Your task to perform on an android device: install app "eBay: The shopping marketplace" Image 0: 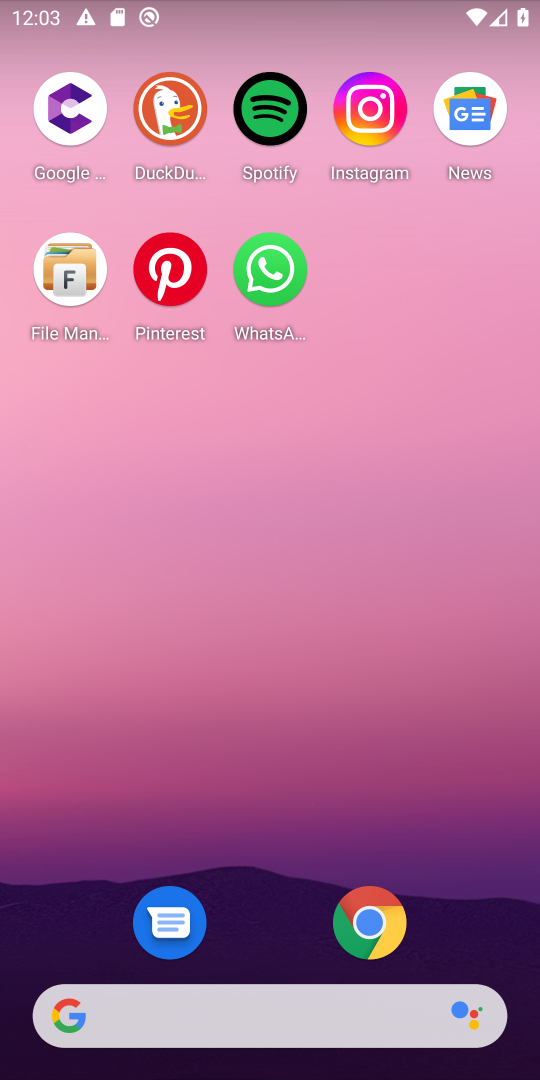
Step 0: drag from (365, 683) to (367, 106)
Your task to perform on an android device: install app "eBay: The shopping marketplace" Image 1: 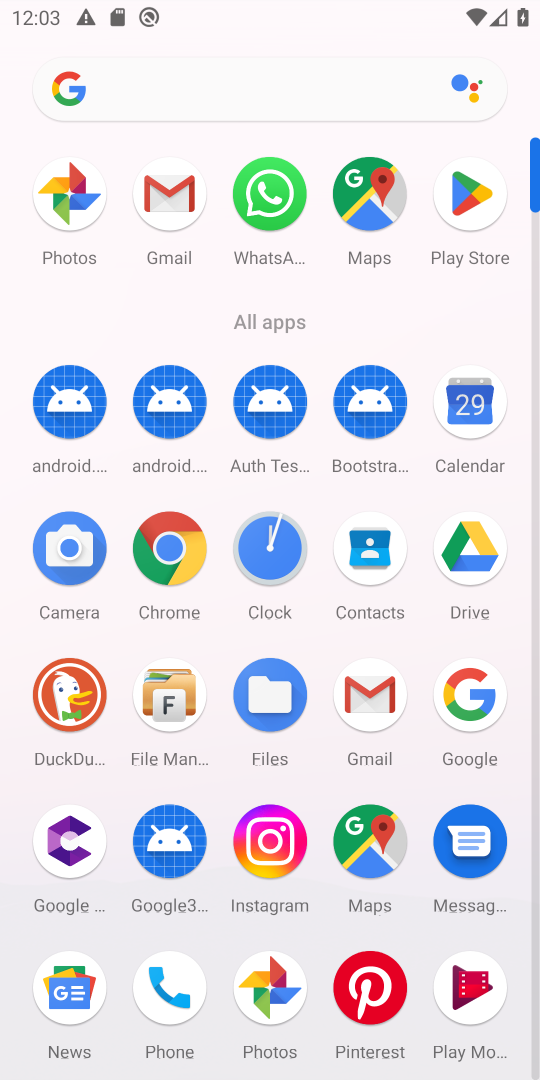
Step 1: drag from (319, 924) to (347, 398)
Your task to perform on an android device: install app "eBay: The shopping marketplace" Image 2: 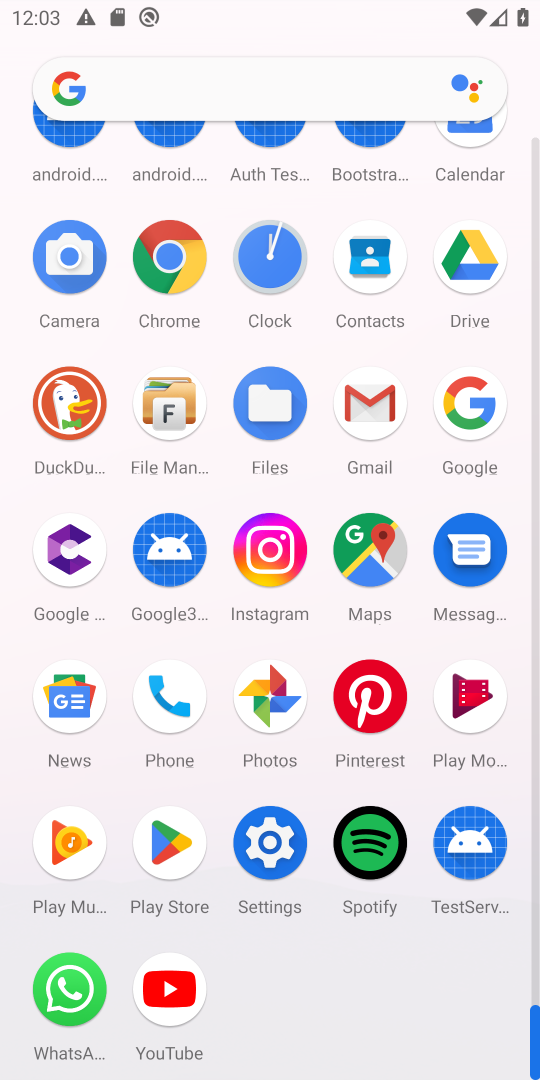
Step 2: click (178, 843)
Your task to perform on an android device: install app "eBay: The shopping marketplace" Image 3: 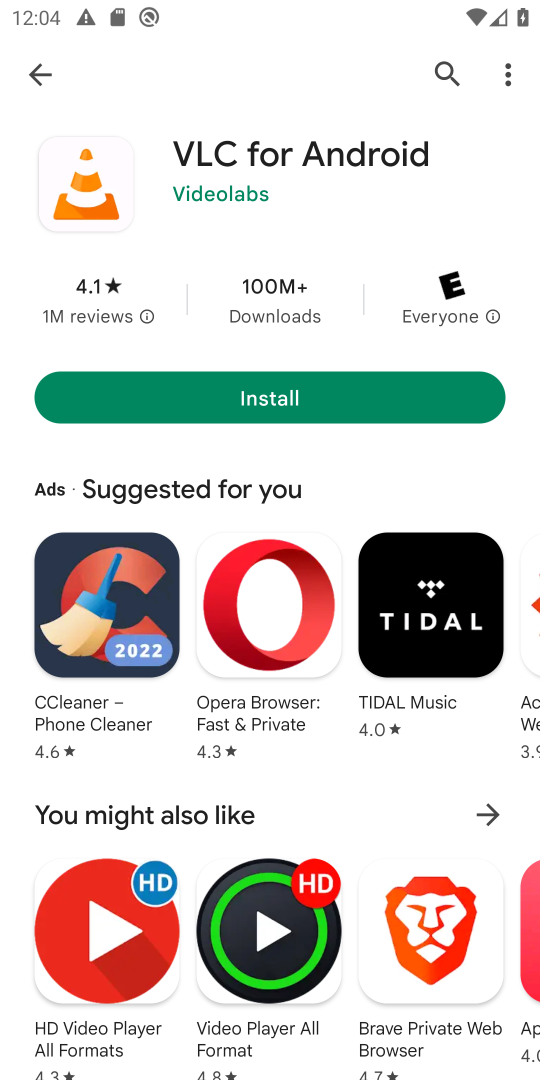
Step 3: click (446, 70)
Your task to perform on an android device: install app "eBay: The shopping marketplace" Image 4: 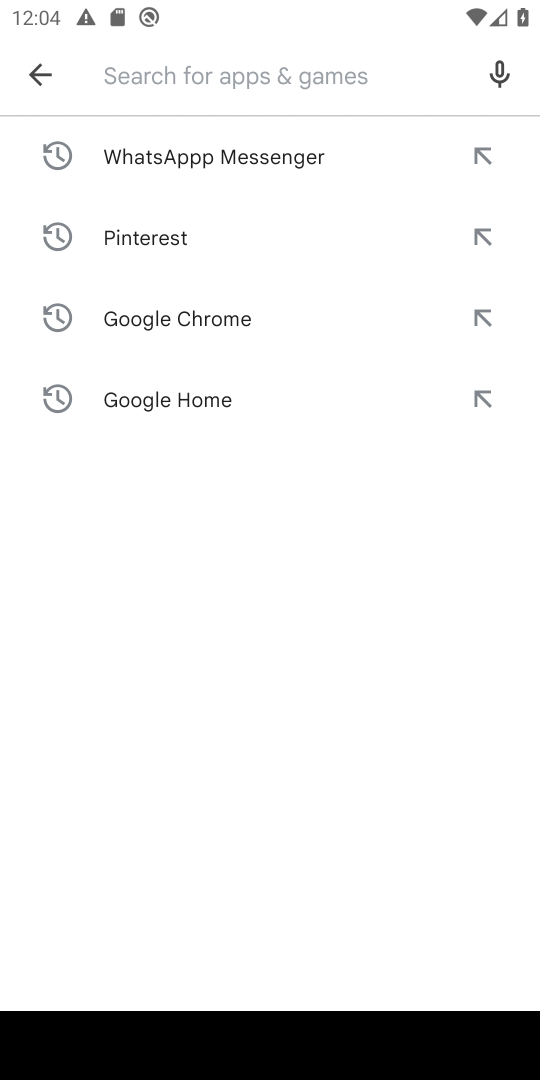
Step 4: type "eBay: The shopping Marketplace"
Your task to perform on an android device: install app "eBay: The shopping marketplace" Image 5: 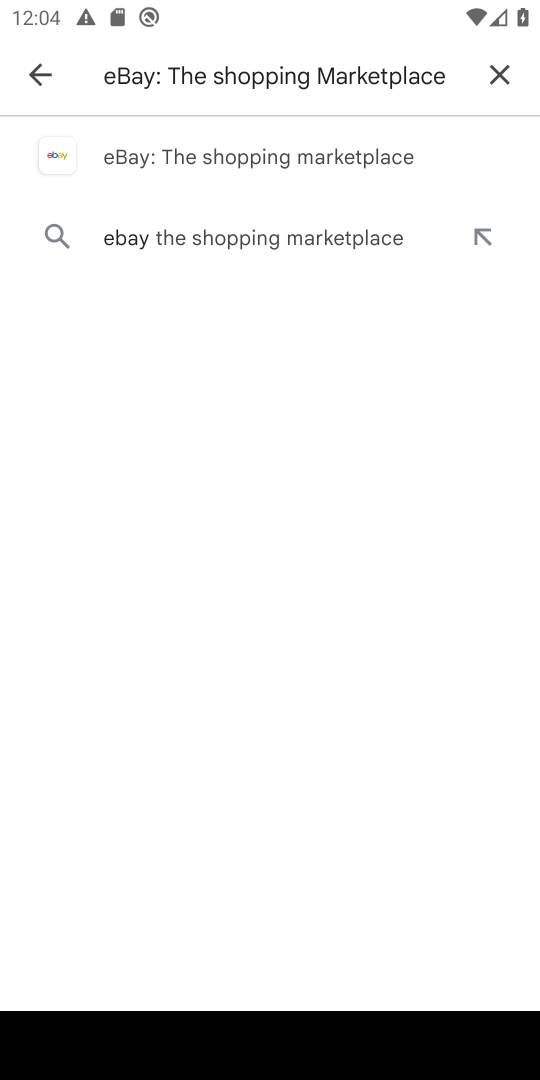
Step 5: press enter
Your task to perform on an android device: install app "eBay: The shopping marketplace" Image 6: 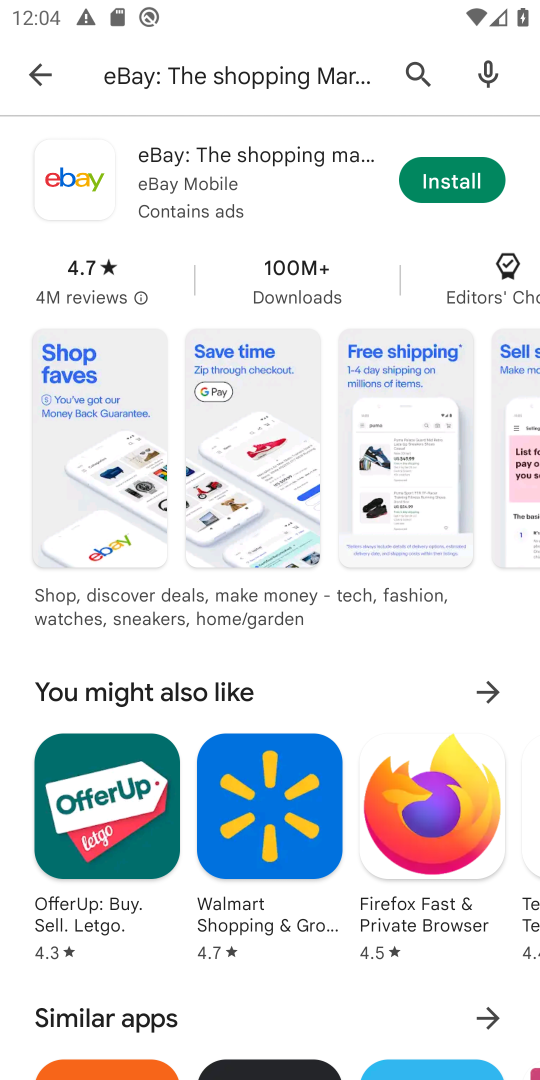
Step 6: click (449, 167)
Your task to perform on an android device: install app "eBay: The shopping marketplace" Image 7: 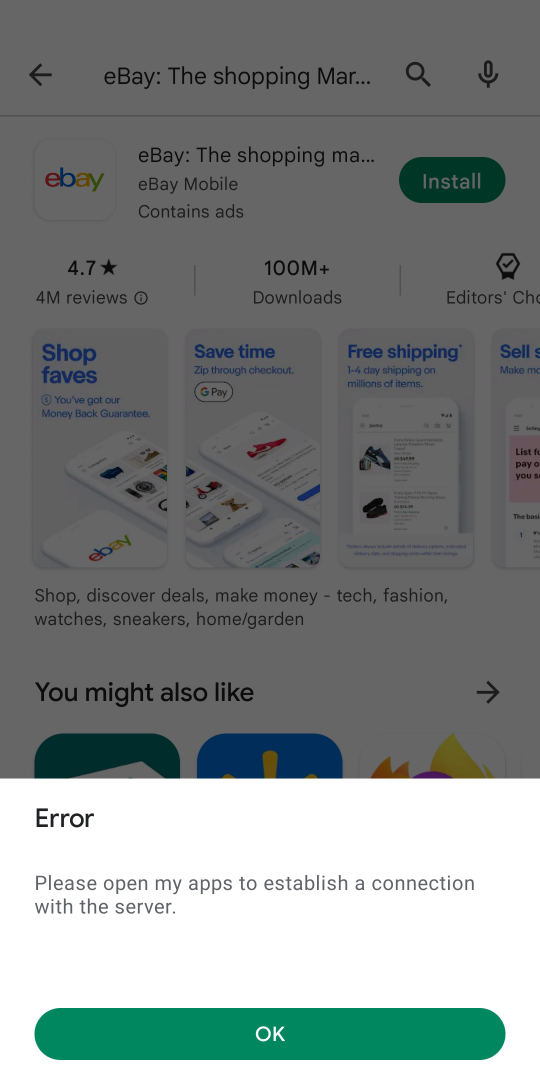
Step 7: task complete